Your task to perform on an android device: clear history in the chrome app Image 0: 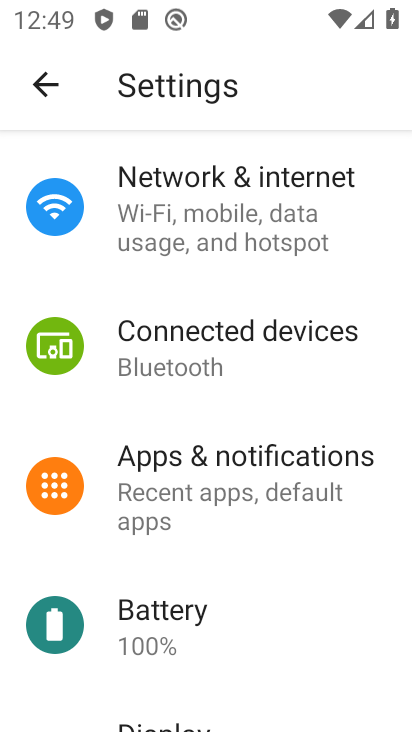
Step 0: press home button
Your task to perform on an android device: clear history in the chrome app Image 1: 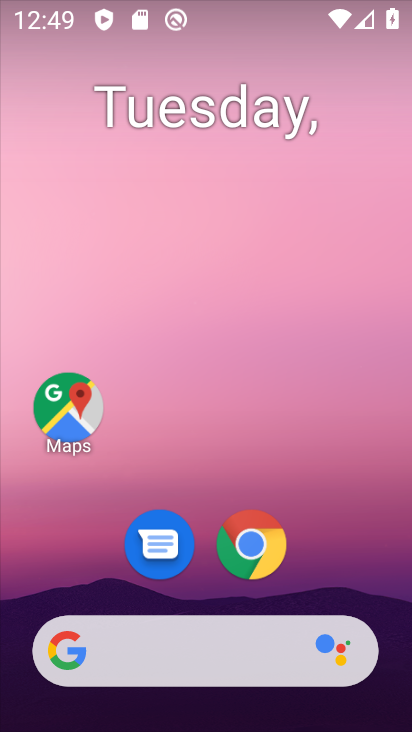
Step 1: click (249, 539)
Your task to perform on an android device: clear history in the chrome app Image 2: 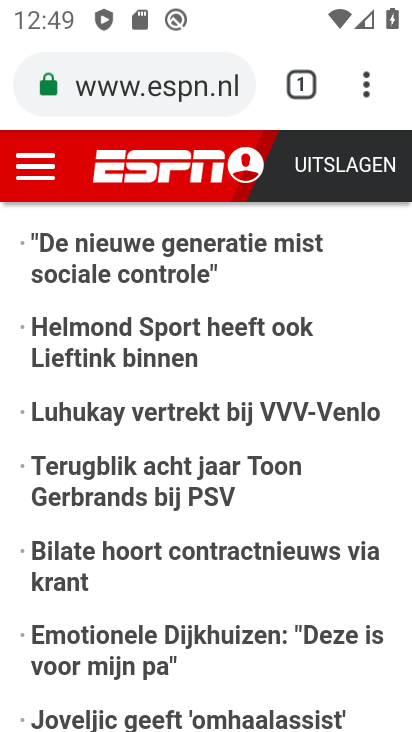
Step 2: click (367, 89)
Your task to perform on an android device: clear history in the chrome app Image 3: 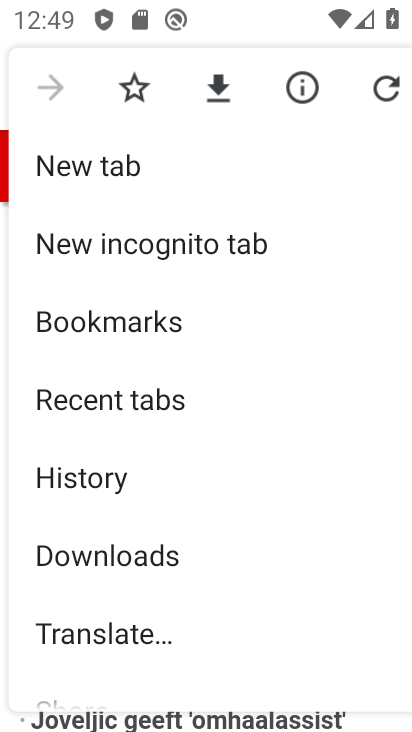
Step 3: click (80, 492)
Your task to perform on an android device: clear history in the chrome app Image 4: 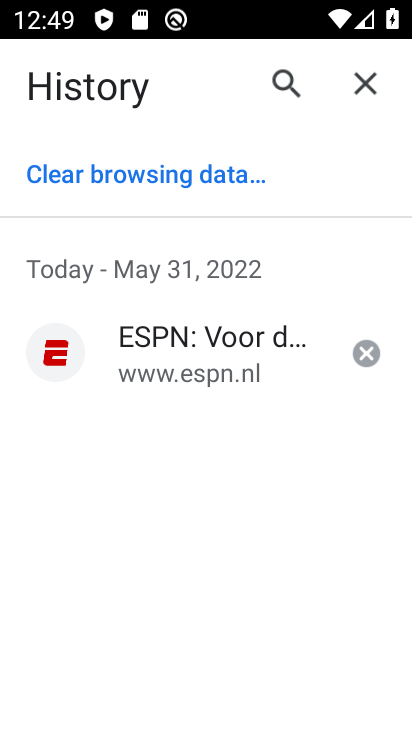
Step 4: click (104, 177)
Your task to perform on an android device: clear history in the chrome app Image 5: 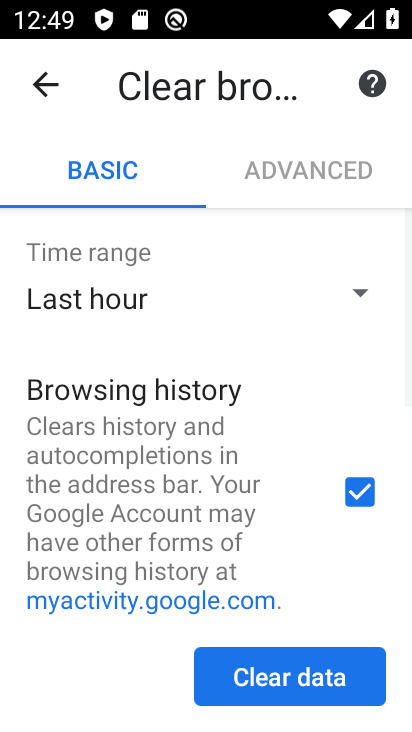
Step 5: drag from (297, 561) to (277, 342)
Your task to perform on an android device: clear history in the chrome app Image 6: 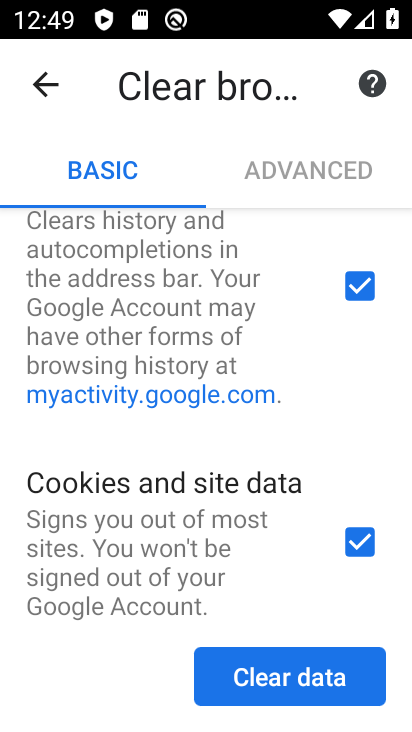
Step 6: click (355, 540)
Your task to perform on an android device: clear history in the chrome app Image 7: 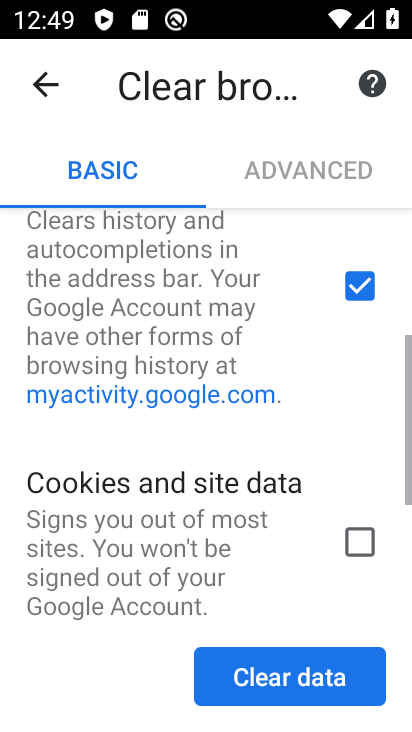
Step 7: drag from (290, 607) to (284, 319)
Your task to perform on an android device: clear history in the chrome app Image 8: 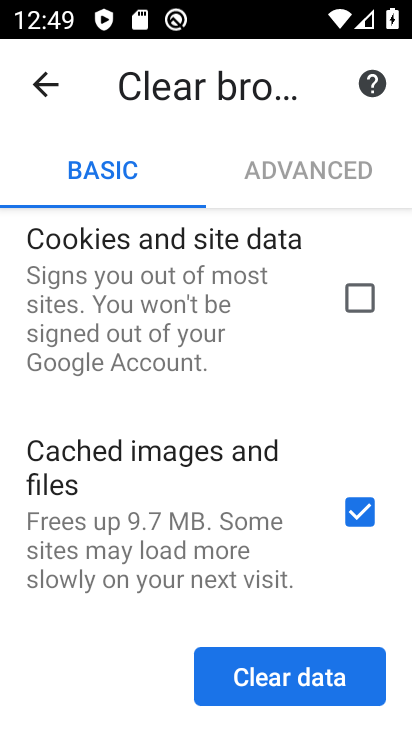
Step 8: click (362, 520)
Your task to perform on an android device: clear history in the chrome app Image 9: 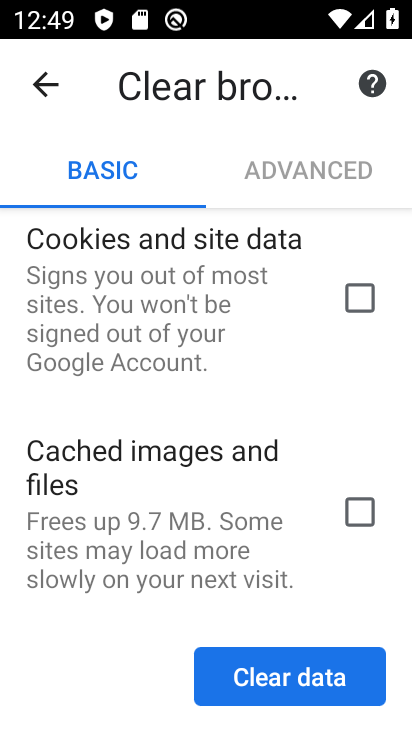
Step 9: click (293, 677)
Your task to perform on an android device: clear history in the chrome app Image 10: 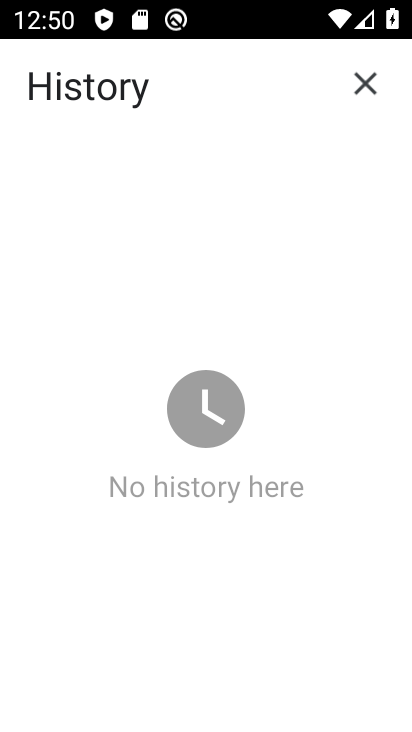
Step 10: task complete